Your task to perform on an android device: Search for seafood restaurants on Google Maps Image 0: 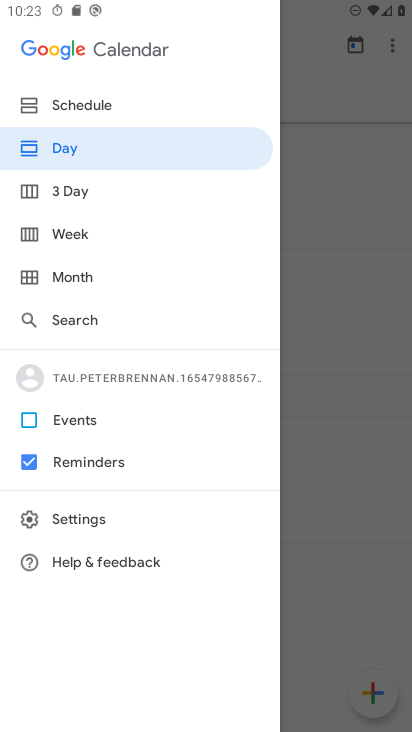
Step 0: press home button
Your task to perform on an android device: Search for seafood restaurants on Google Maps Image 1: 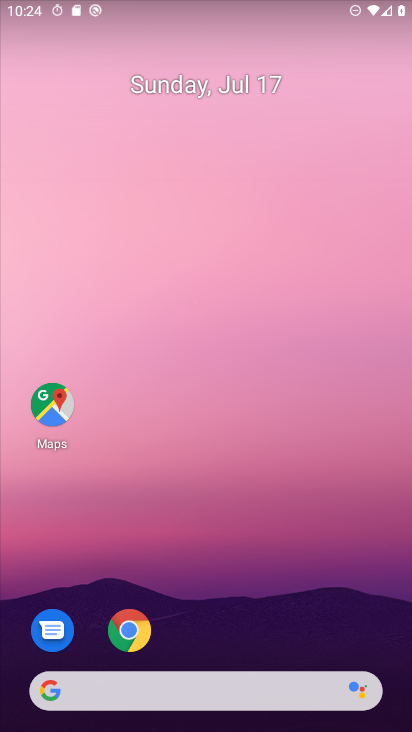
Step 1: drag from (241, 691) to (244, 329)
Your task to perform on an android device: Search for seafood restaurants on Google Maps Image 2: 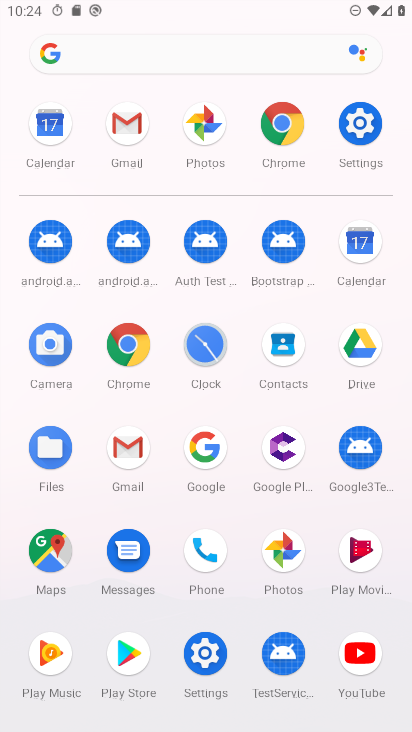
Step 2: click (63, 551)
Your task to perform on an android device: Search for seafood restaurants on Google Maps Image 3: 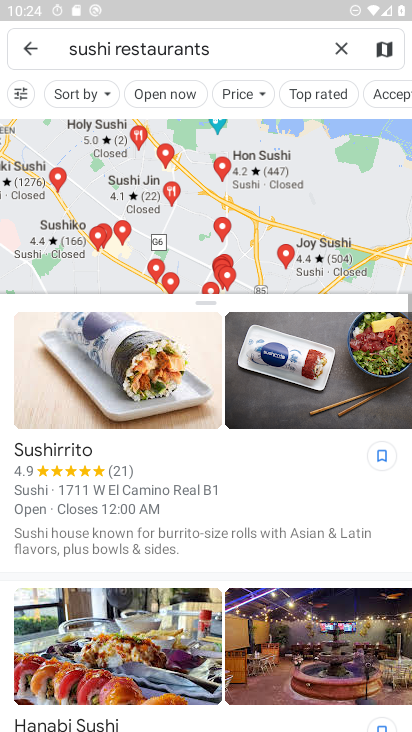
Step 3: click (340, 38)
Your task to perform on an android device: Search for seafood restaurants on Google Maps Image 4: 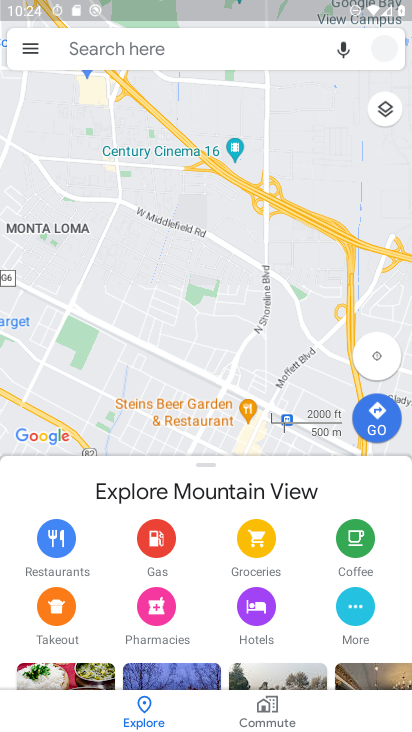
Step 4: click (252, 48)
Your task to perform on an android device: Search for seafood restaurants on Google Maps Image 5: 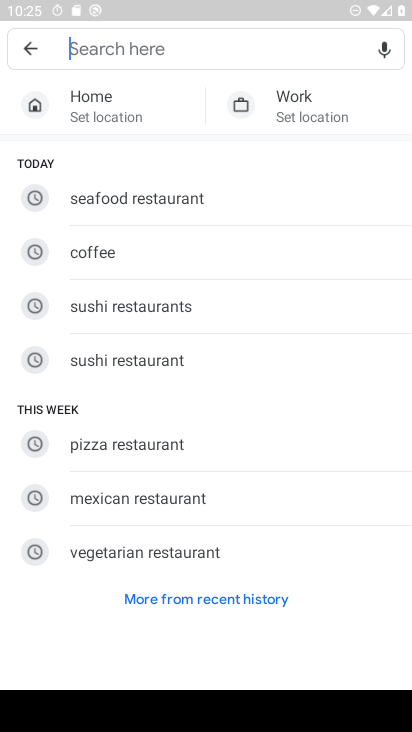
Step 5: click (147, 198)
Your task to perform on an android device: Search for seafood restaurants on Google Maps Image 6: 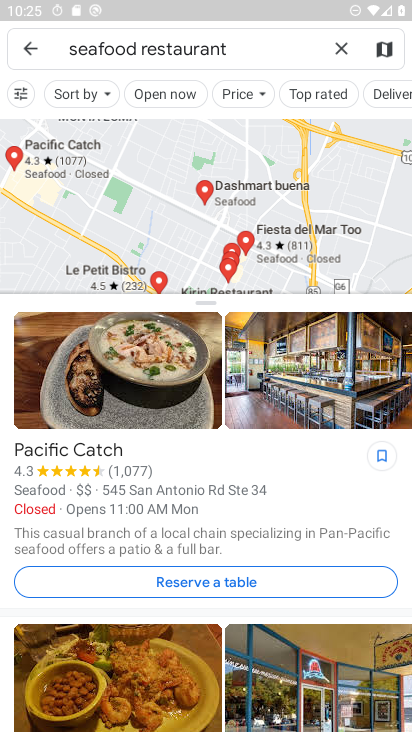
Step 6: task complete